Your task to perform on an android device: Do I have any events this weekend? Image 0: 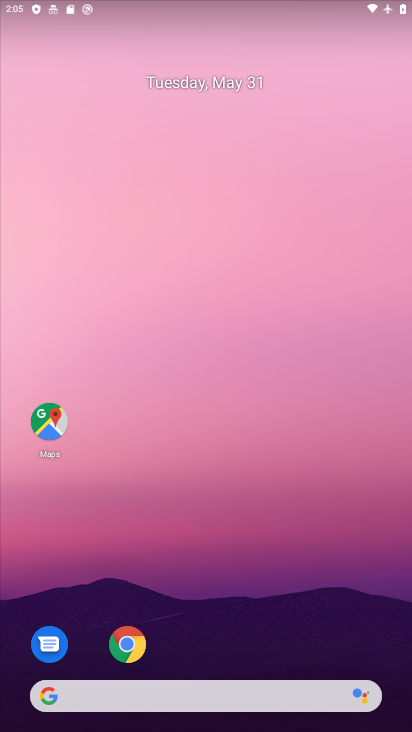
Step 0: click (132, 639)
Your task to perform on an android device: Do I have any events this weekend? Image 1: 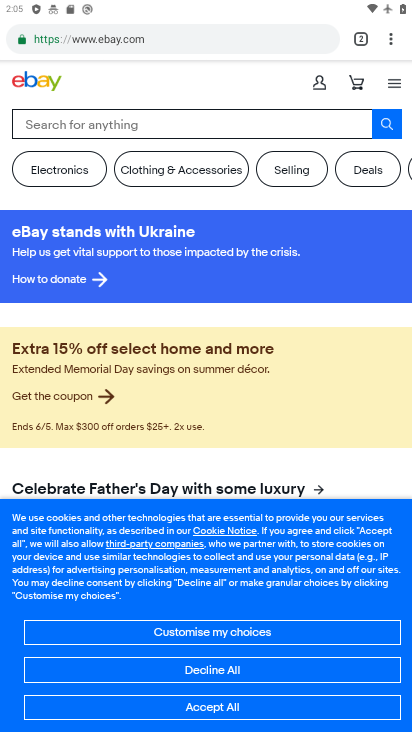
Step 1: press home button
Your task to perform on an android device: Do I have any events this weekend? Image 2: 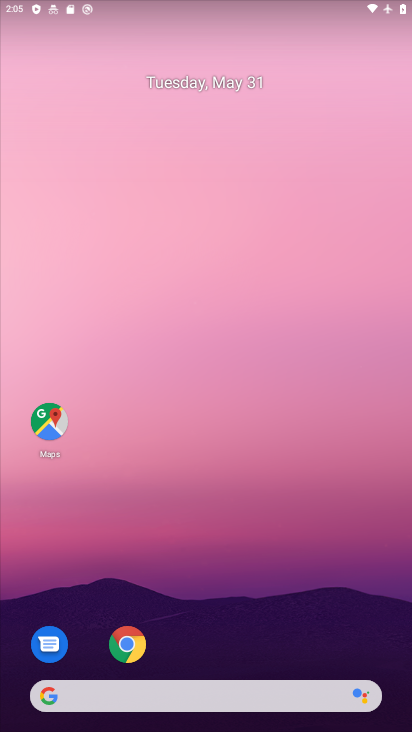
Step 2: drag from (258, 443) to (227, 48)
Your task to perform on an android device: Do I have any events this weekend? Image 3: 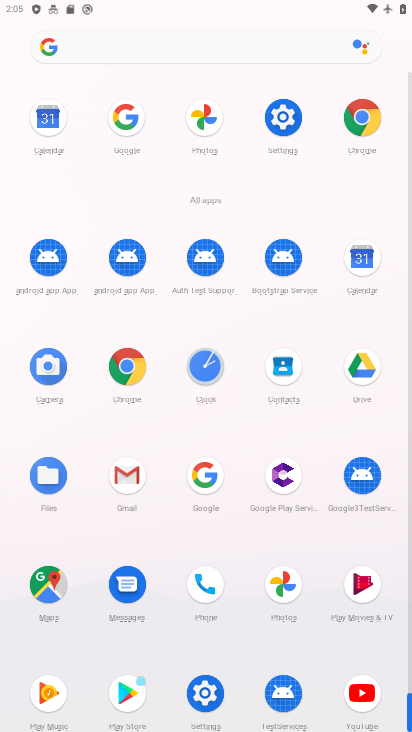
Step 3: click (358, 259)
Your task to perform on an android device: Do I have any events this weekend? Image 4: 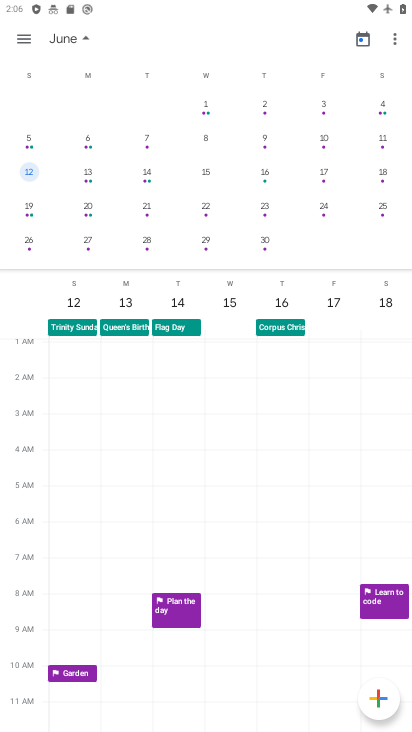
Step 4: drag from (65, 194) to (406, 192)
Your task to perform on an android device: Do I have any events this weekend? Image 5: 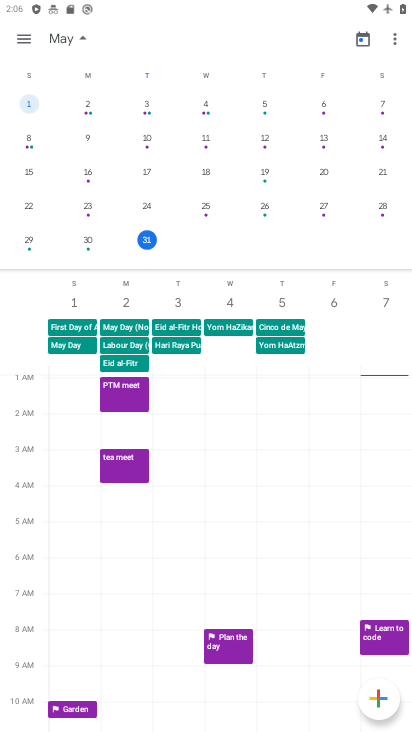
Step 5: click (141, 240)
Your task to perform on an android device: Do I have any events this weekend? Image 6: 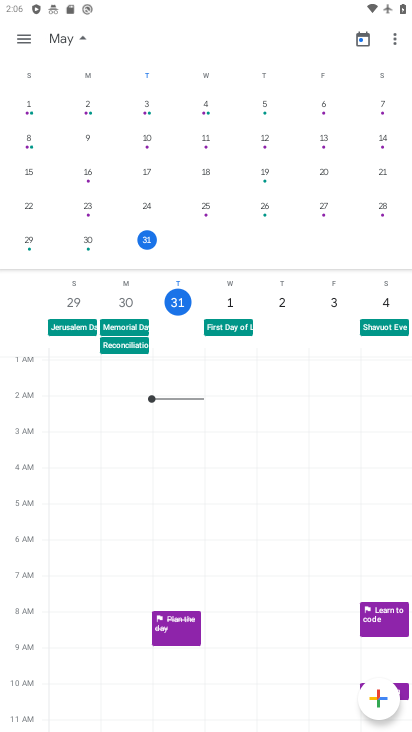
Step 6: task complete